Your task to perform on an android device: Toggle the flashlight Image 0: 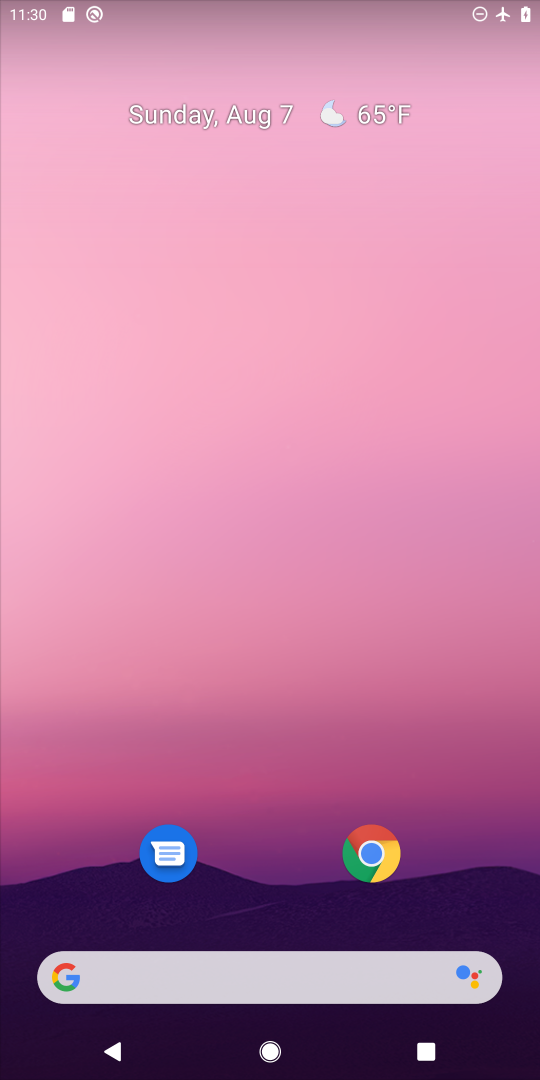
Step 0: drag from (177, 855) to (229, 100)
Your task to perform on an android device: Toggle the flashlight Image 1: 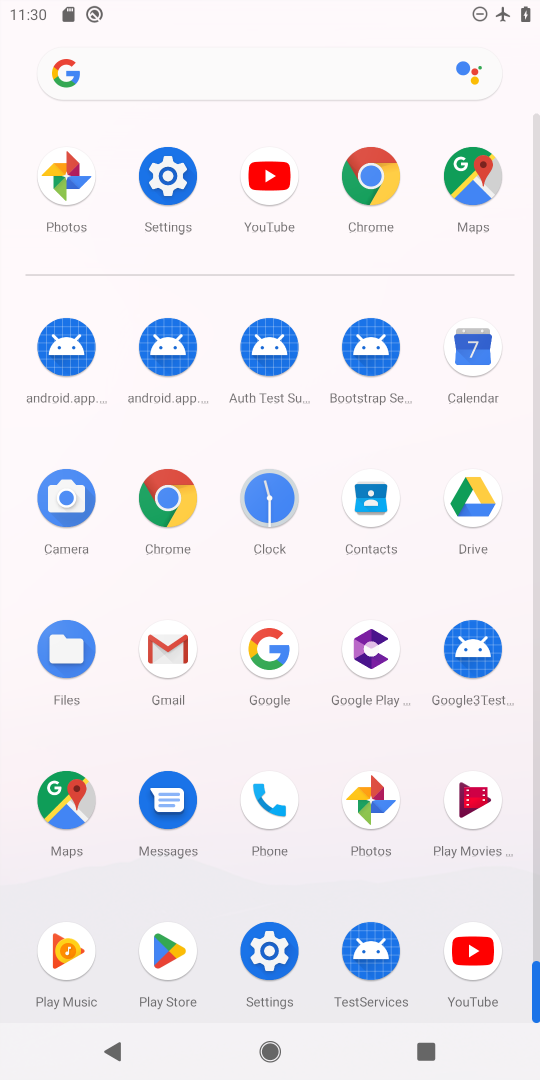
Step 1: click (147, 163)
Your task to perform on an android device: Toggle the flashlight Image 2: 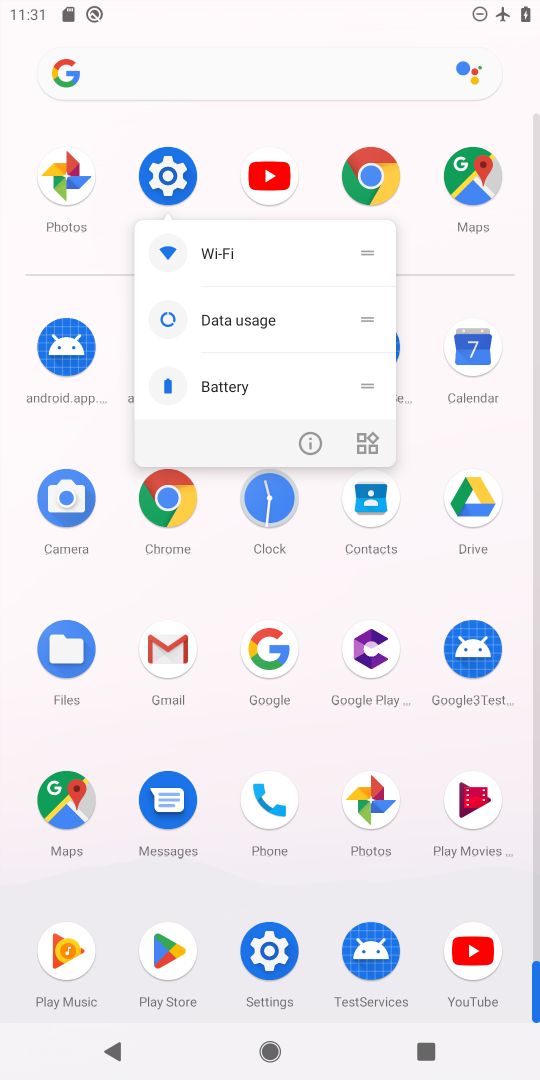
Step 2: click (147, 163)
Your task to perform on an android device: Toggle the flashlight Image 3: 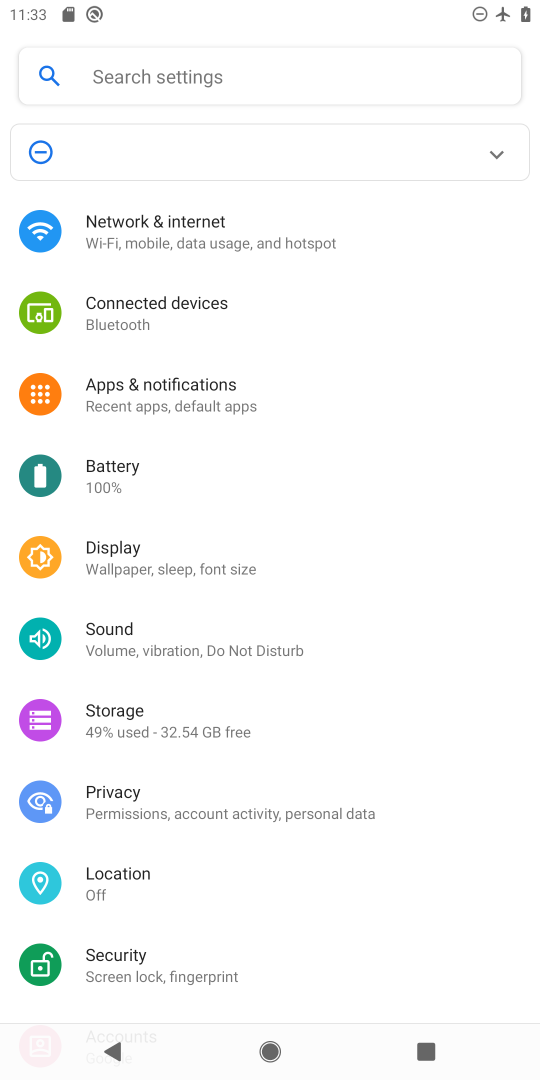
Step 3: task complete